Your task to perform on an android device: Open sound settings Image 0: 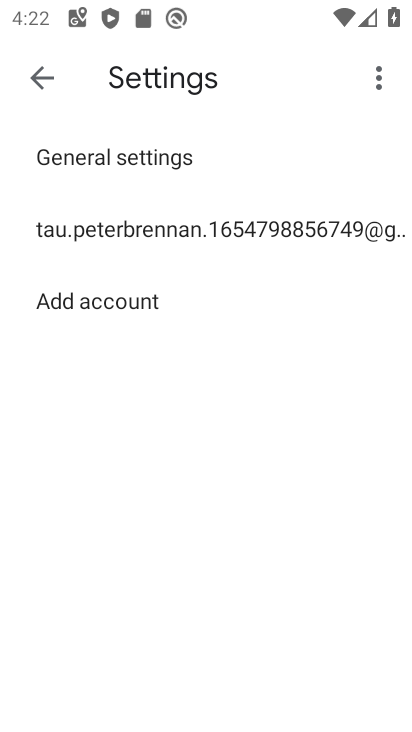
Step 0: press back button
Your task to perform on an android device: Open sound settings Image 1: 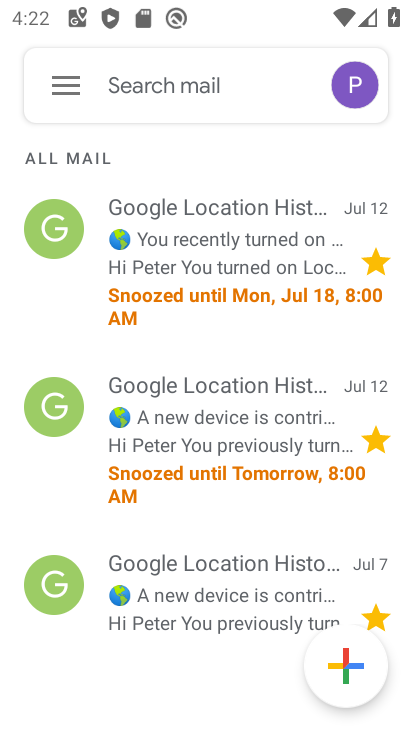
Step 1: press back button
Your task to perform on an android device: Open sound settings Image 2: 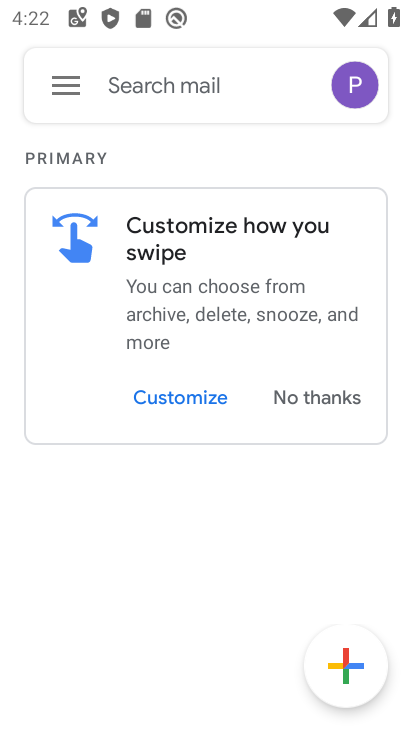
Step 2: press back button
Your task to perform on an android device: Open sound settings Image 3: 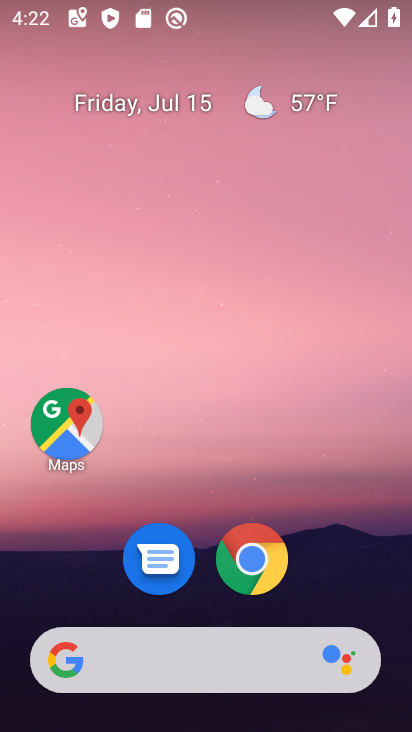
Step 3: drag from (70, 587) to (239, 4)
Your task to perform on an android device: Open sound settings Image 4: 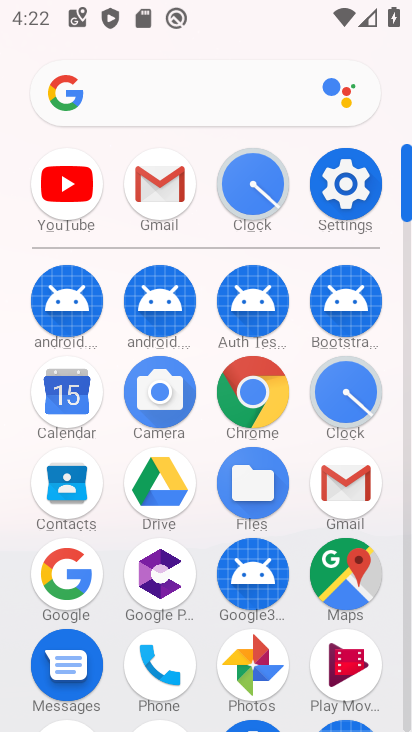
Step 4: click (343, 187)
Your task to perform on an android device: Open sound settings Image 5: 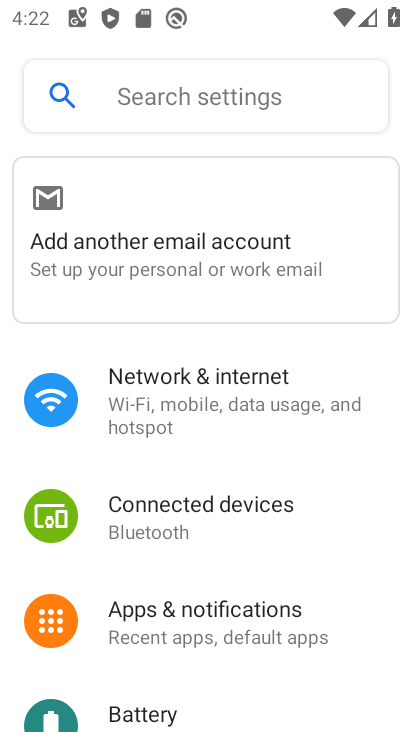
Step 5: drag from (171, 670) to (267, 11)
Your task to perform on an android device: Open sound settings Image 6: 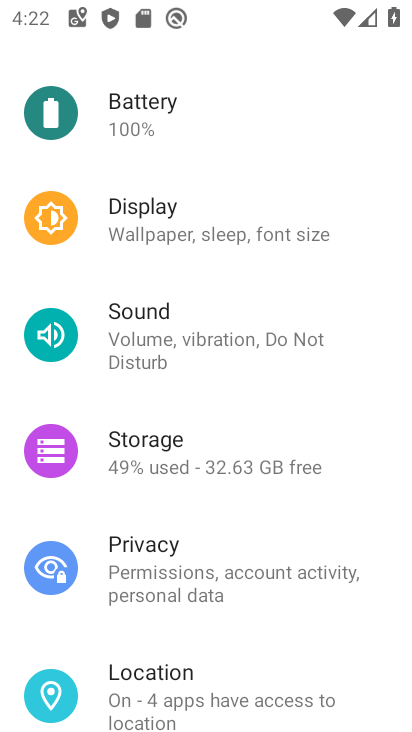
Step 6: click (140, 341)
Your task to perform on an android device: Open sound settings Image 7: 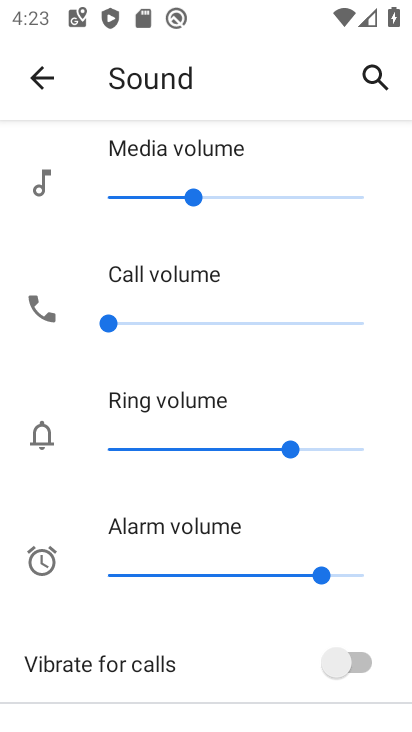
Step 7: task complete